Your task to perform on an android device: toggle airplane mode Image 0: 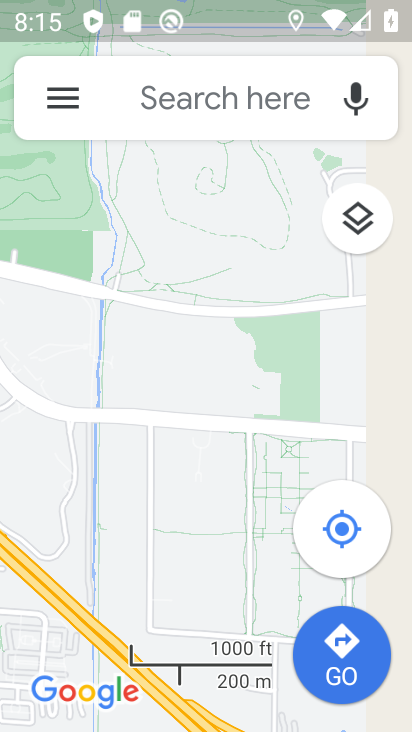
Step 0: press home button
Your task to perform on an android device: toggle airplane mode Image 1: 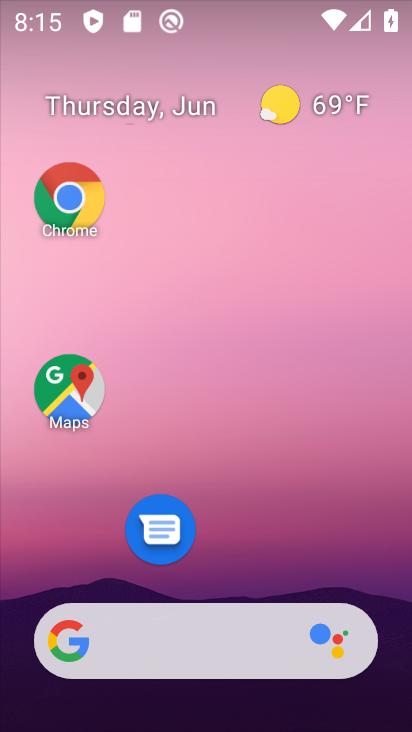
Step 1: drag from (220, 583) to (133, 36)
Your task to perform on an android device: toggle airplane mode Image 2: 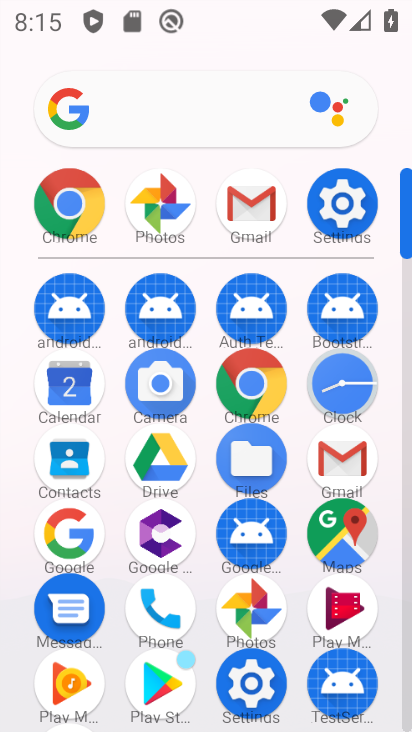
Step 2: click (328, 191)
Your task to perform on an android device: toggle airplane mode Image 3: 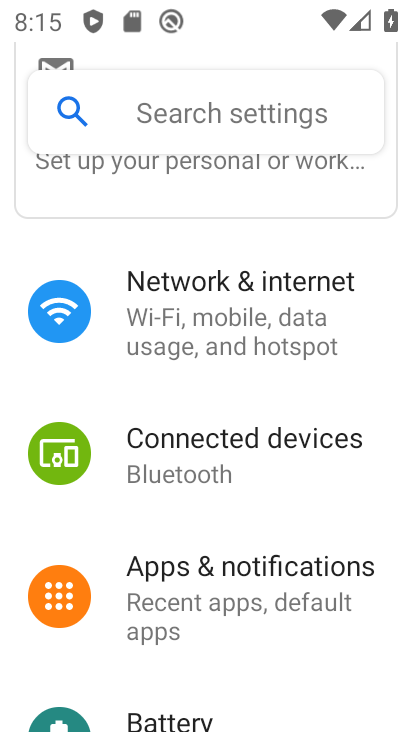
Step 3: drag from (328, 191) to (332, 415)
Your task to perform on an android device: toggle airplane mode Image 4: 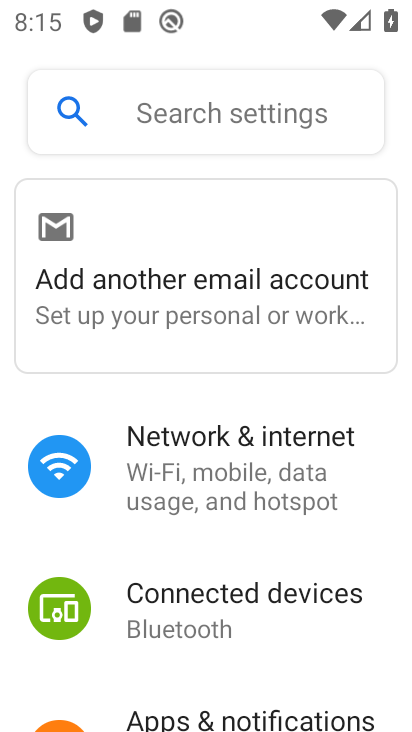
Step 4: click (225, 456)
Your task to perform on an android device: toggle airplane mode Image 5: 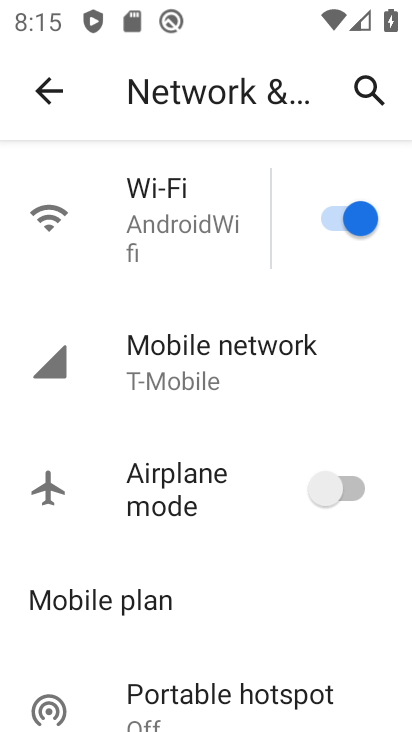
Step 5: click (165, 511)
Your task to perform on an android device: toggle airplane mode Image 6: 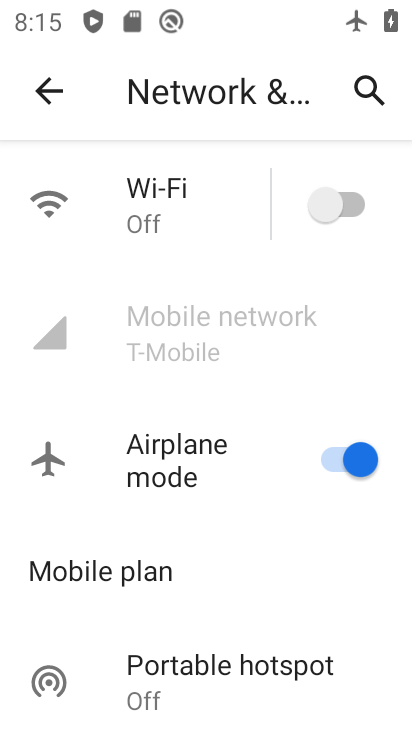
Step 6: task complete